Your task to perform on an android device: Open the phone app and click the voicemail tab. Image 0: 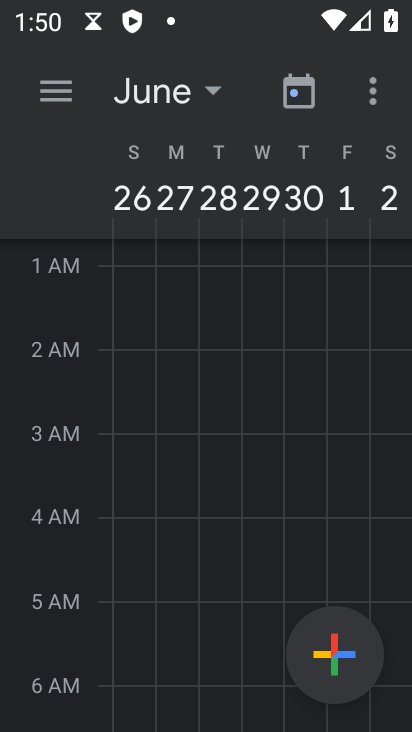
Step 0: press back button
Your task to perform on an android device: Open the phone app and click the voicemail tab. Image 1: 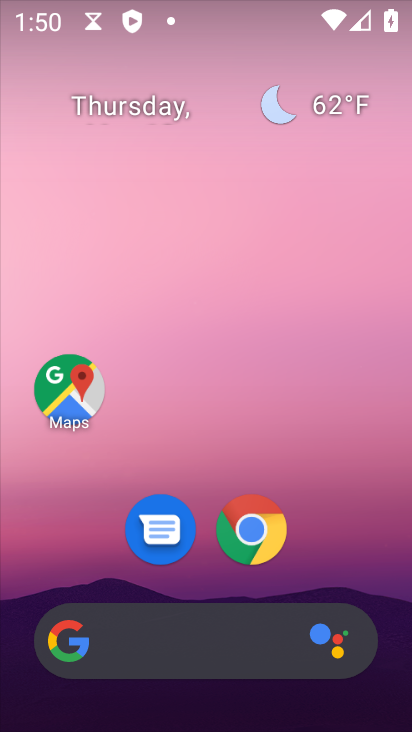
Step 1: drag from (329, 562) to (199, 34)
Your task to perform on an android device: Open the phone app and click the voicemail tab. Image 2: 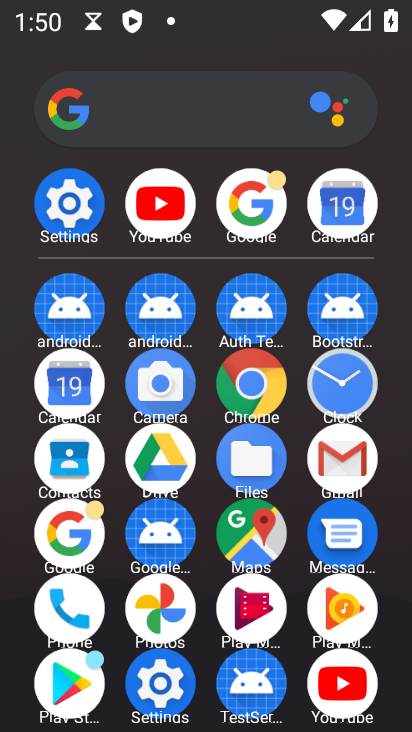
Step 2: click (64, 608)
Your task to perform on an android device: Open the phone app and click the voicemail tab. Image 3: 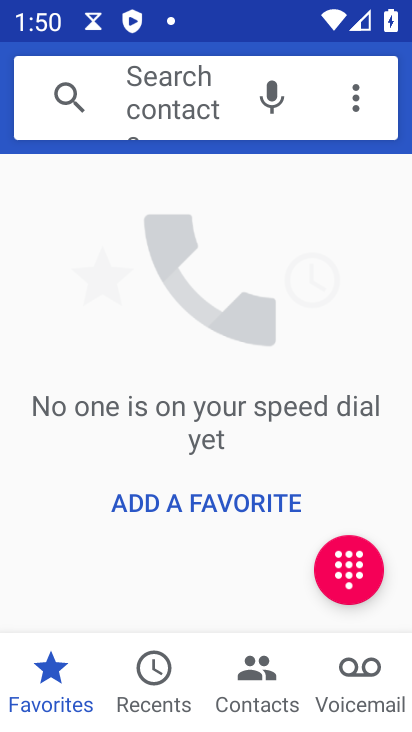
Step 3: click (363, 672)
Your task to perform on an android device: Open the phone app and click the voicemail tab. Image 4: 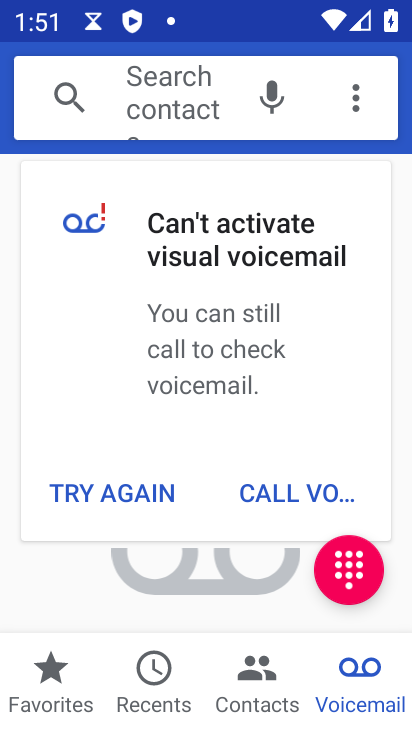
Step 4: task complete